Your task to perform on an android device: check storage Image 0: 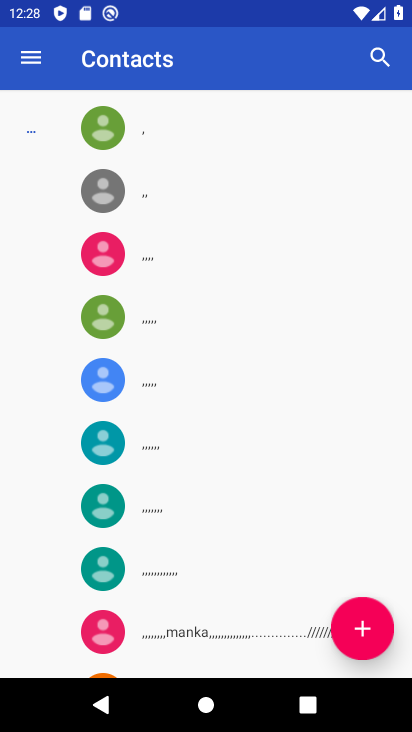
Step 0: press home button
Your task to perform on an android device: check storage Image 1: 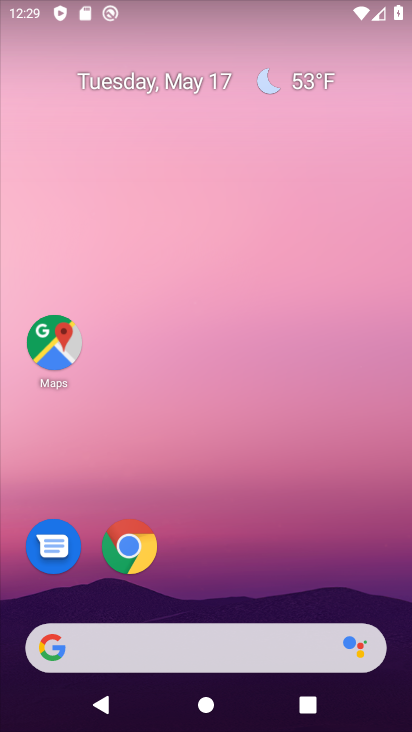
Step 1: drag from (201, 601) to (216, 271)
Your task to perform on an android device: check storage Image 2: 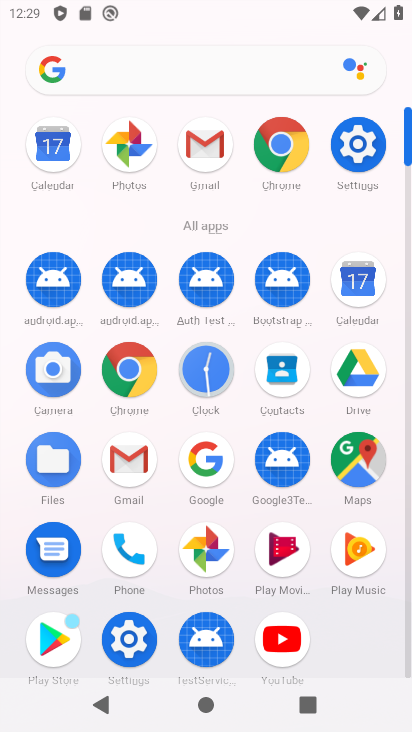
Step 2: click (372, 141)
Your task to perform on an android device: check storage Image 3: 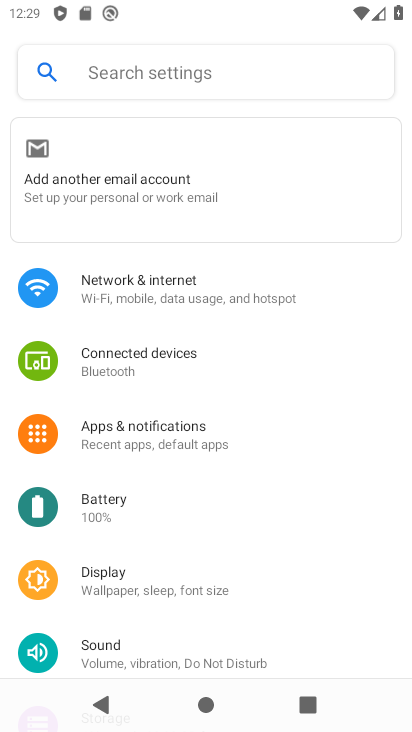
Step 3: drag from (163, 608) to (194, 418)
Your task to perform on an android device: check storage Image 4: 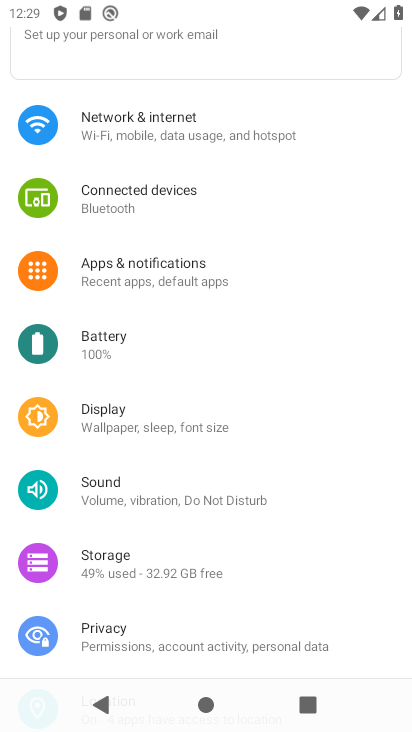
Step 4: click (162, 549)
Your task to perform on an android device: check storage Image 5: 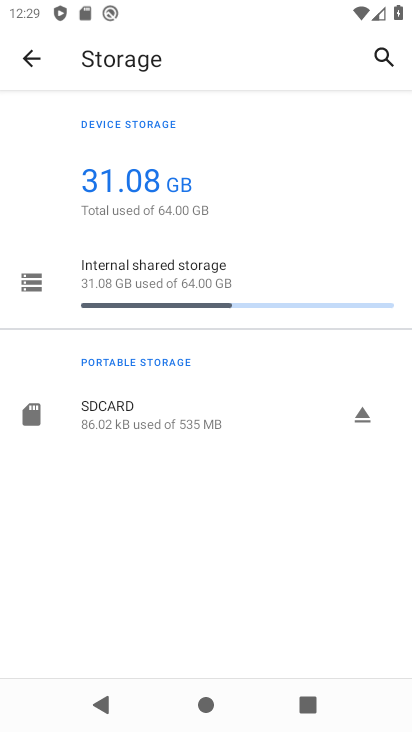
Step 5: task complete